Your task to perform on an android device: turn off priority inbox in the gmail app Image 0: 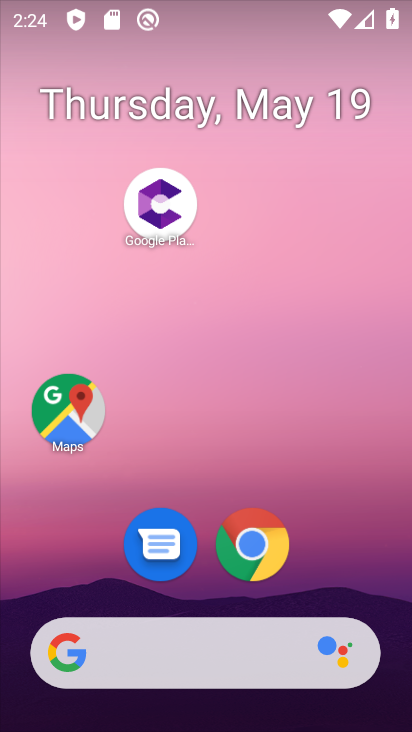
Step 0: press home button
Your task to perform on an android device: turn off priority inbox in the gmail app Image 1: 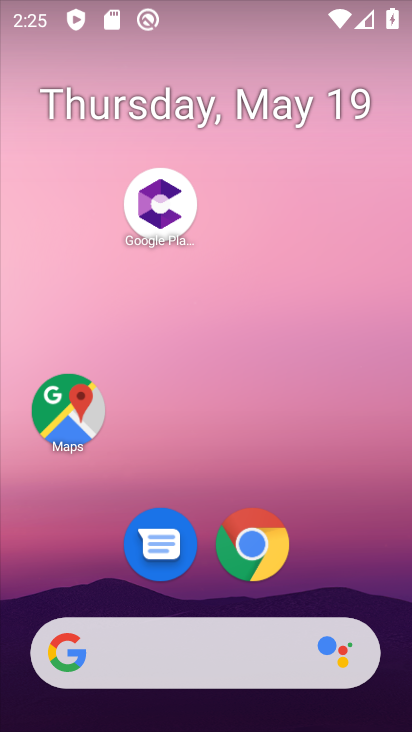
Step 1: drag from (292, 581) to (334, 160)
Your task to perform on an android device: turn off priority inbox in the gmail app Image 2: 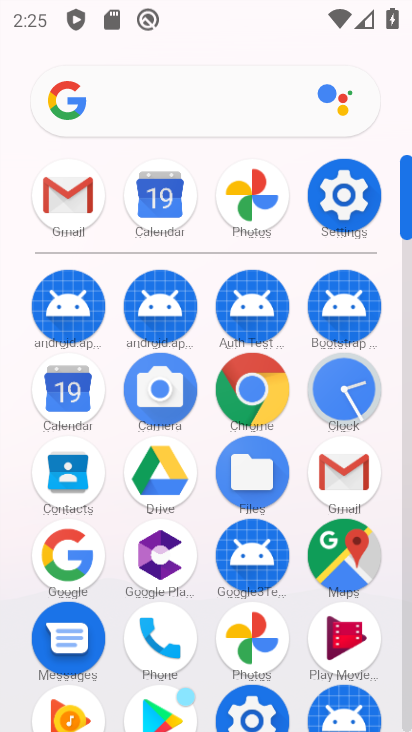
Step 2: click (94, 211)
Your task to perform on an android device: turn off priority inbox in the gmail app Image 3: 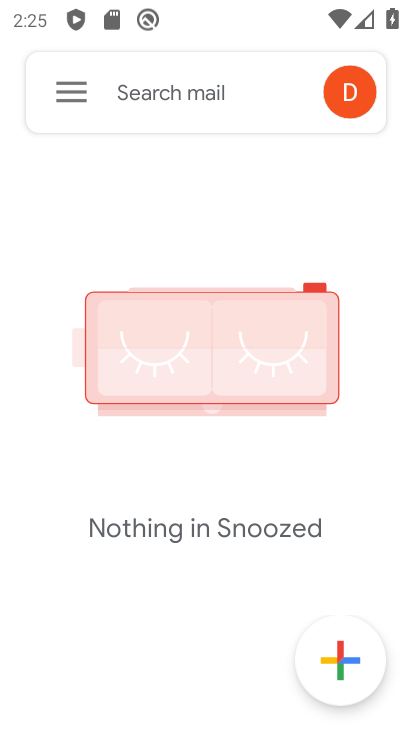
Step 3: click (91, 94)
Your task to perform on an android device: turn off priority inbox in the gmail app Image 4: 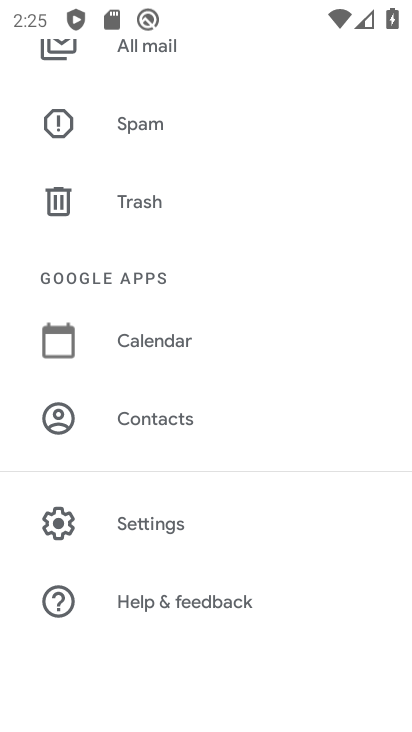
Step 4: click (166, 519)
Your task to perform on an android device: turn off priority inbox in the gmail app Image 5: 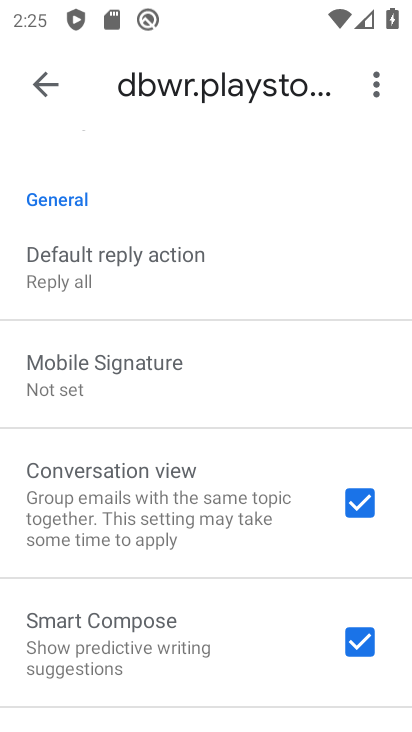
Step 5: drag from (137, 537) to (222, 193)
Your task to perform on an android device: turn off priority inbox in the gmail app Image 6: 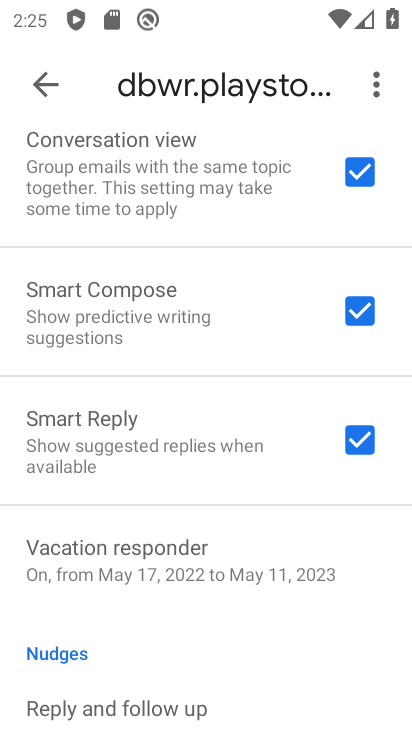
Step 6: drag from (213, 575) to (278, 613)
Your task to perform on an android device: turn off priority inbox in the gmail app Image 7: 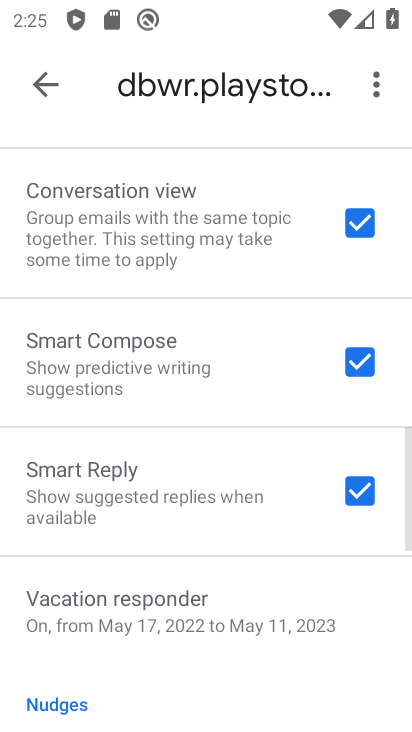
Step 7: drag from (220, 229) to (233, 553)
Your task to perform on an android device: turn off priority inbox in the gmail app Image 8: 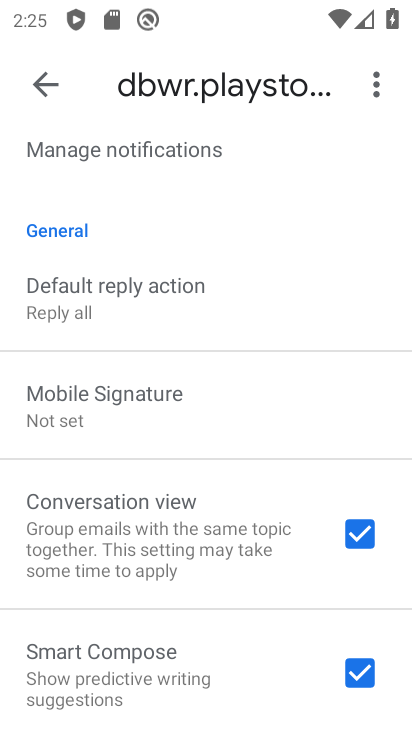
Step 8: drag from (187, 272) to (191, 455)
Your task to perform on an android device: turn off priority inbox in the gmail app Image 9: 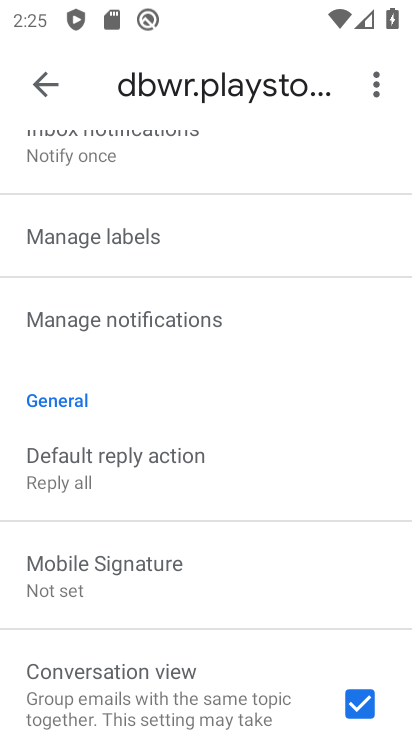
Step 9: drag from (159, 332) to (151, 673)
Your task to perform on an android device: turn off priority inbox in the gmail app Image 10: 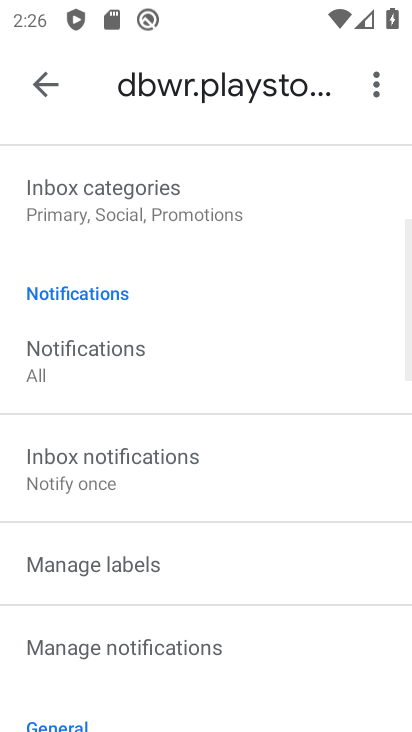
Step 10: drag from (120, 228) to (108, 427)
Your task to perform on an android device: turn off priority inbox in the gmail app Image 11: 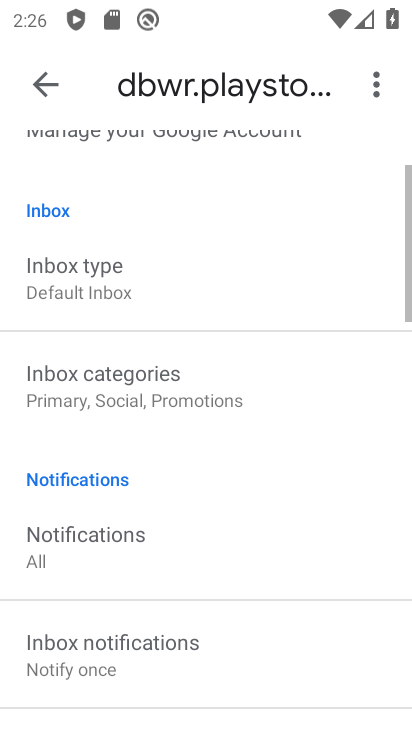
Step 11: click (137, 283)
Your task to perform on an android device: turn off priority inbox in the gmail app Image 12: 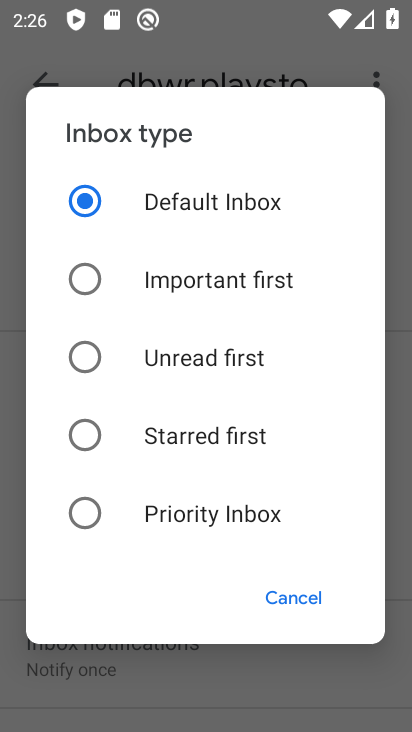
Step 12: task complete